Your task to perform on an android device: turn off javascript in the chrome app Image 0: 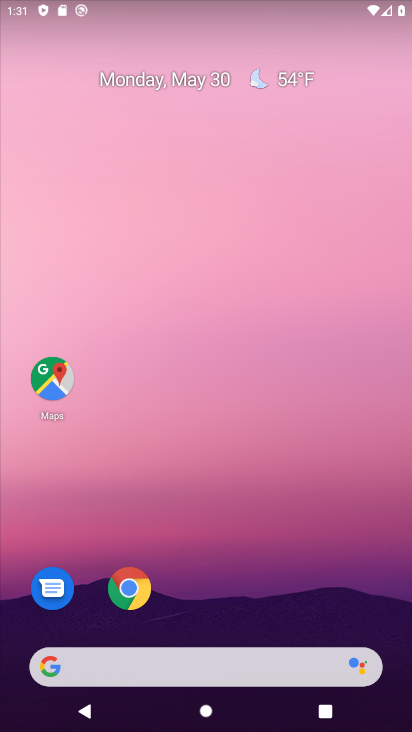
Step 0: drag from (236, 596) to (215, 141)
Your task to perform on an android device: turn off javascript in the chrome app Image 1: 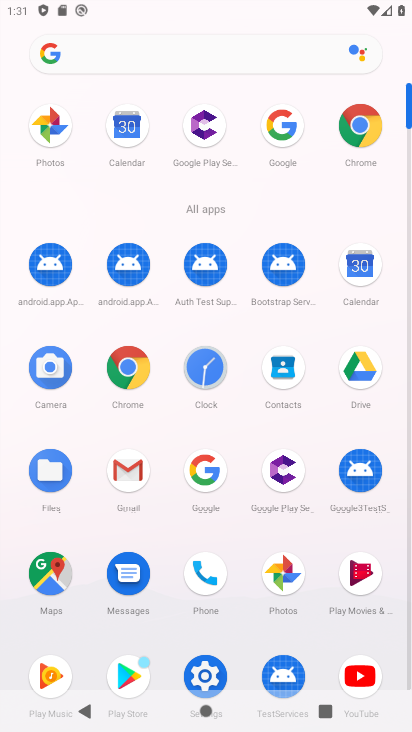
Step 1: click (360, 125)
Your task to perform on an android device: turn off javascript in the chrome app Image 2: 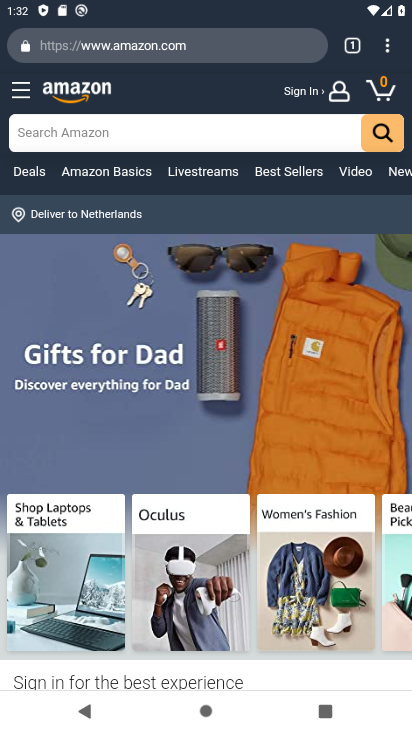
Step 2: click (378, 42)
Your task to perform on an android device: turn off javascript in the chrome app Image 3: 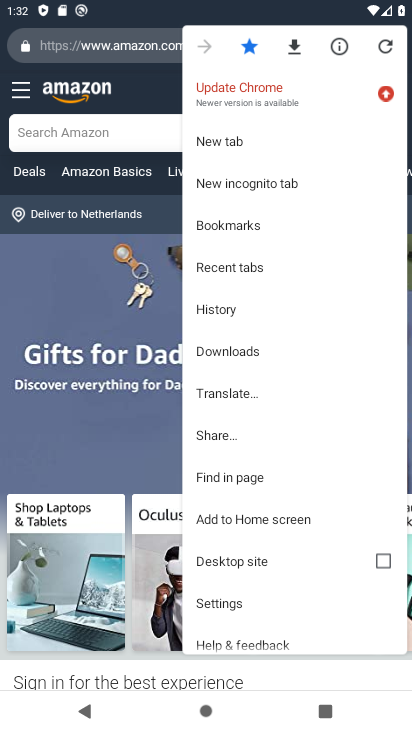
Step 3: click (238, 600)
Your task to perform on an android device: turn off javascript in the chrome app Image 4: 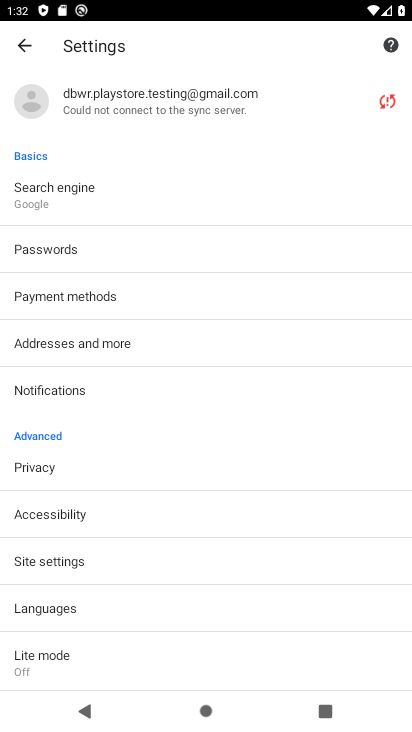
Step 4: click (53, 561)
Your task to perform on an android device: turn off javascript in the chrome app Image 5: 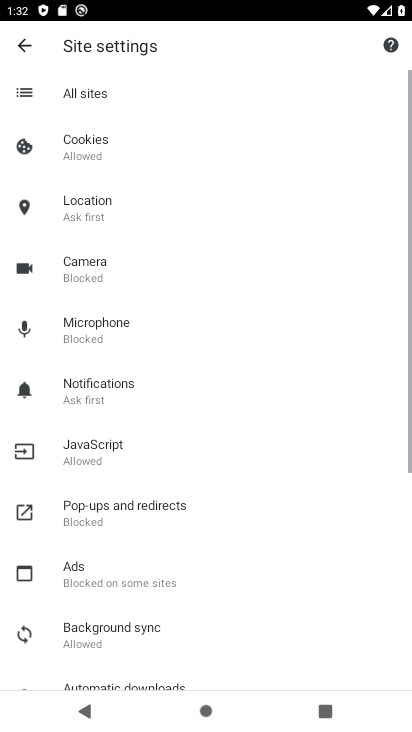
Step 5: click (116, 467)
Your task to perform on an android device: turn off javascript in the chrome app Image 6: 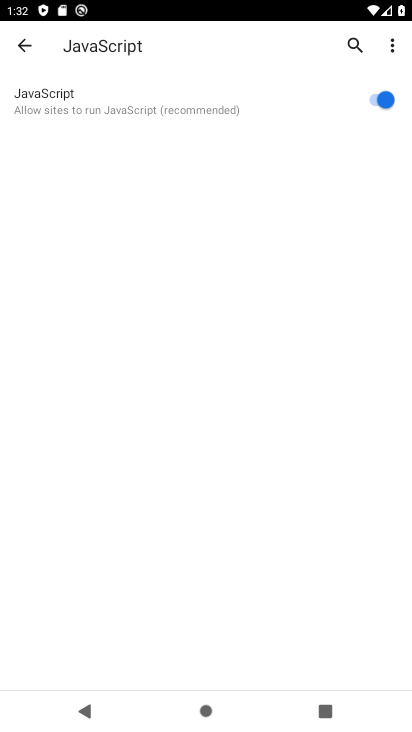
Step 6: click (386, 112)
Your task to perform on an android device: turn off javascript in the chrome app Image 7: 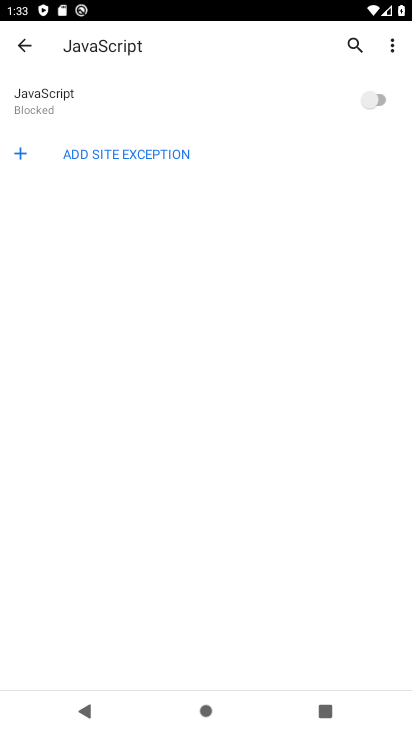
Step 7: task complete